Your task to perform on an android device: Search for pizza restaurants on Maps Image 0: 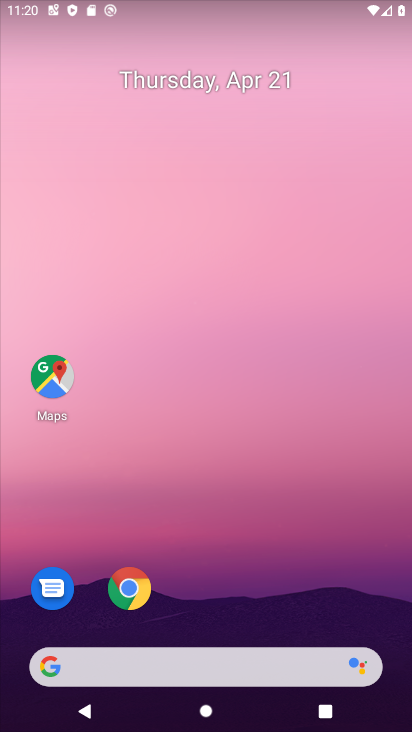
Step 0: click (70, 394)
Your task to perform on an android device: Search for pizza restaurants on Maps Image 1: 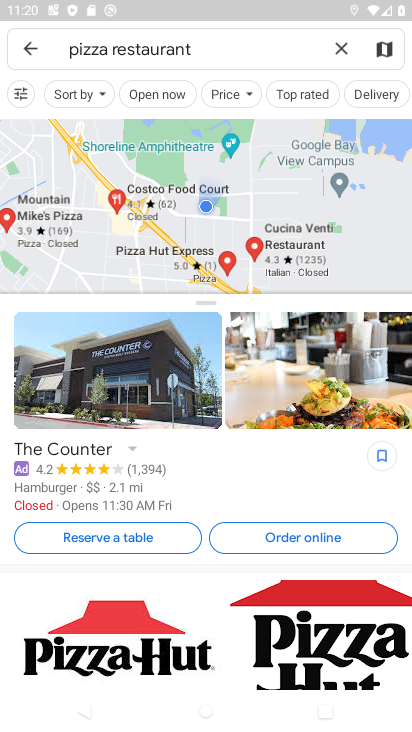
Step 1: task complete